Your task to perform on an android device: Go to Android settings Image 0: 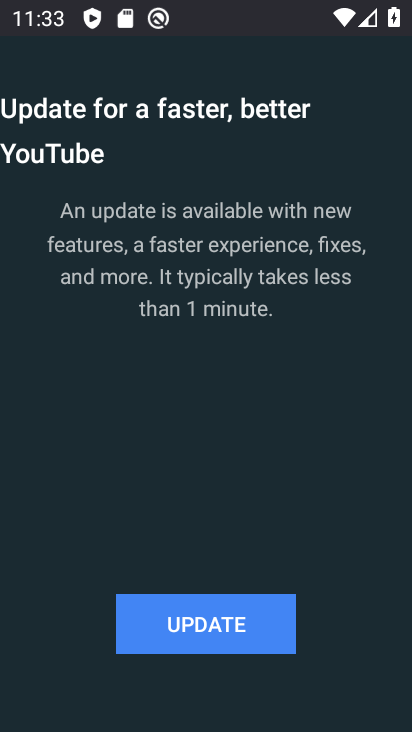
Step 0: press home button
Your task to perform on an android device: Go to Android settings Image 1: 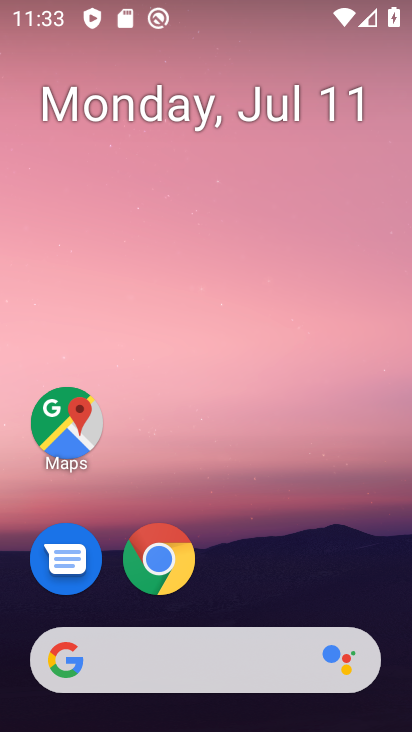
Step 1: drag from (204, 626) to (221, 256)
Your task to perform on an android device: Go to Android settings Image 2: 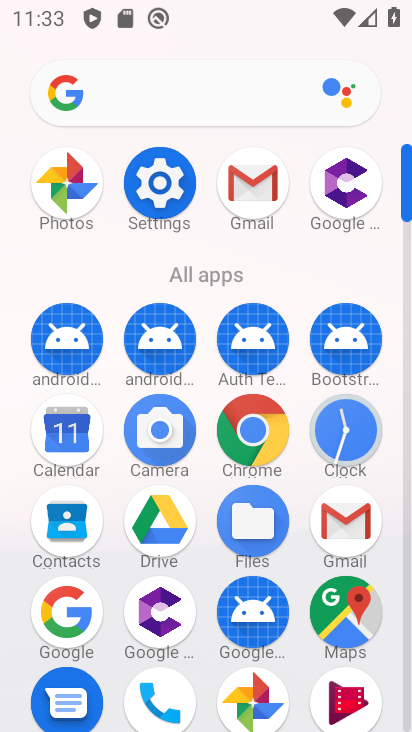
Step 2: click (152, 181)
Your task to perform on an android device: Go to Android settings Image 3: 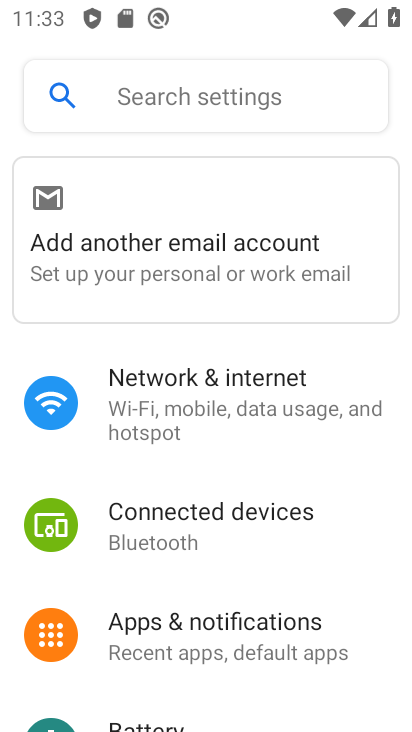
Step 3: task complete